Your task to perform on an android device: delete a single message in the gmail app Image 0: 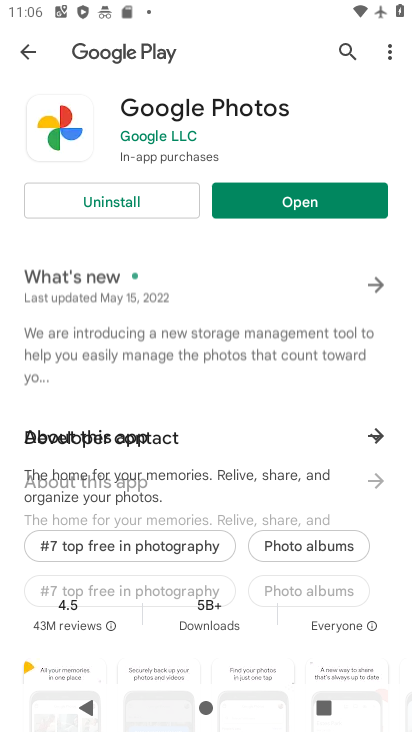
Step 0: press home button
Your task to perform on an android device: delete a single message in the gmail app Image 1: 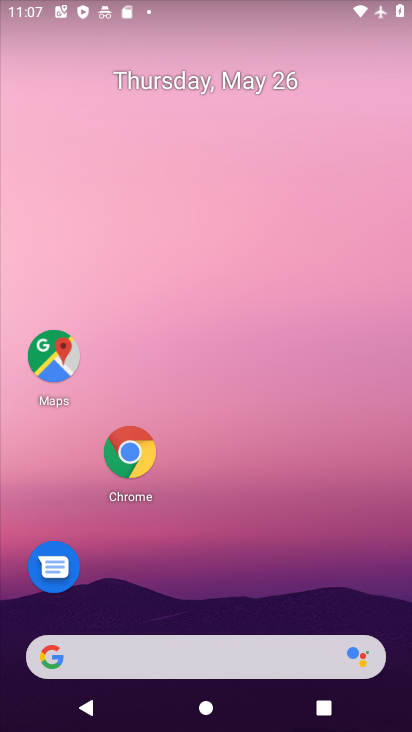
Step 1: drag from (148, 661) to (304, 138)
Your task to perform on an android device: delete a single message in the gmail app Image 2: 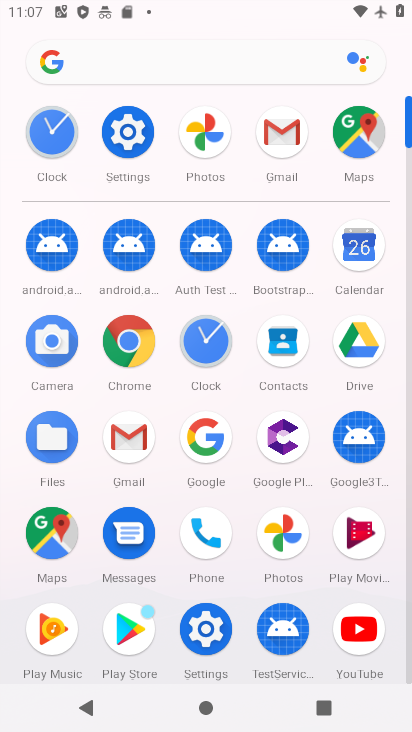
Step 2: click (280, 142)
Your task to perform on an android device: delete a single message in the gmail app Image 3: 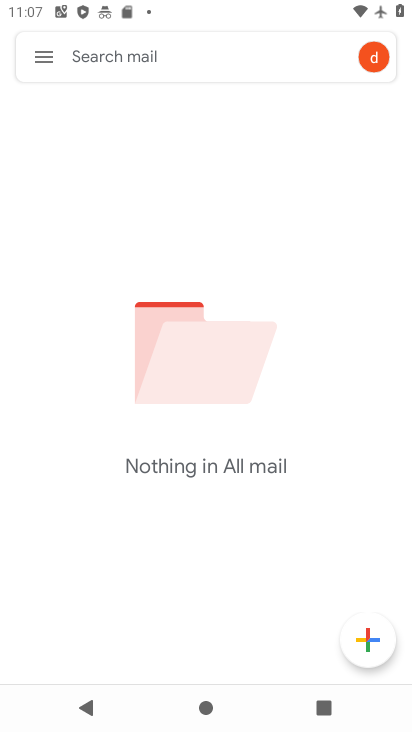
Step 3: task complete